Your task to perform on an android device: install app "Clock" Image 0: 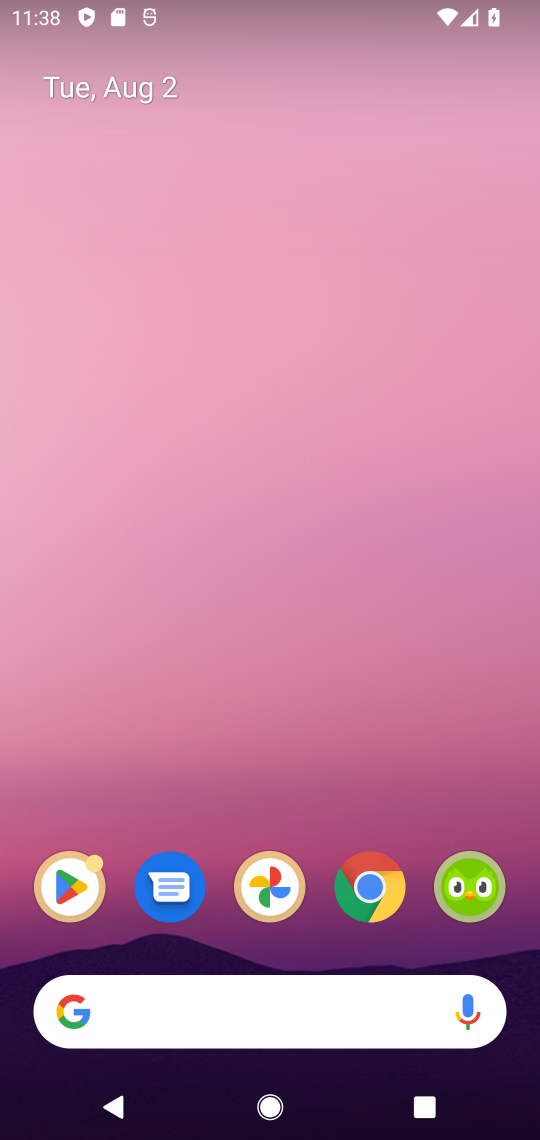
Step 0: drag from (137, 934) to (196, 70)
Your task to perform on an android device: install app "Clock" Image 1: 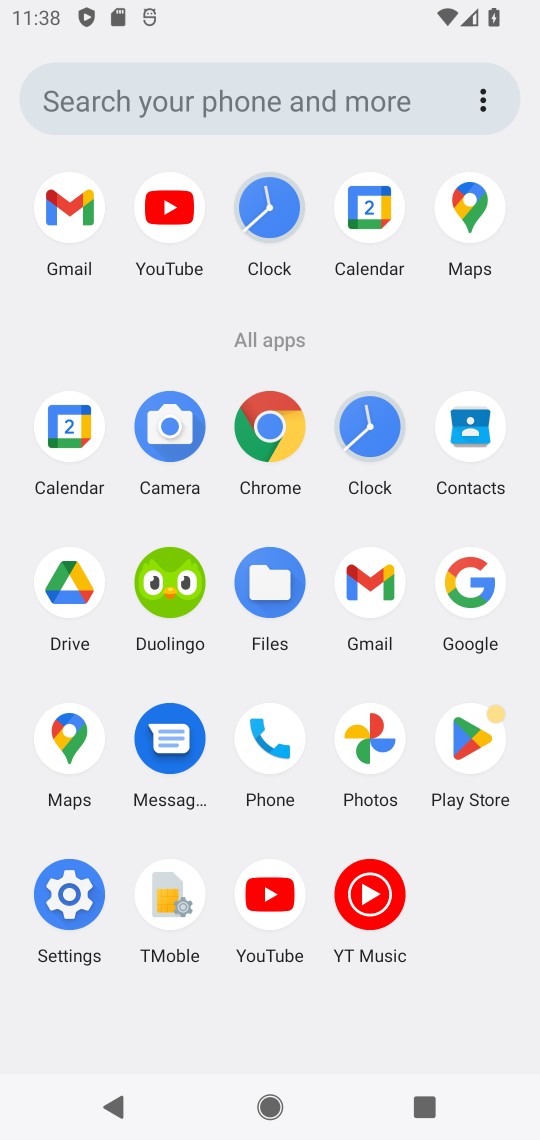
Step 1: click (481, 746)
Your task to perform on an android device: install app "Clock" Image 2: 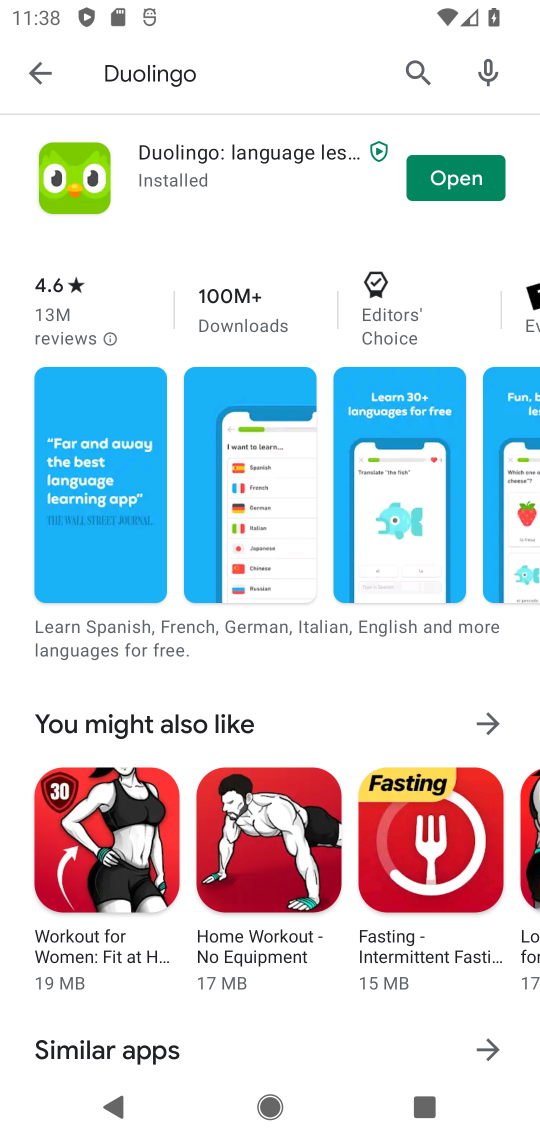
Step 2: click (423, 67)
Your task to perform on an android device: install app "Clock" Image 3: 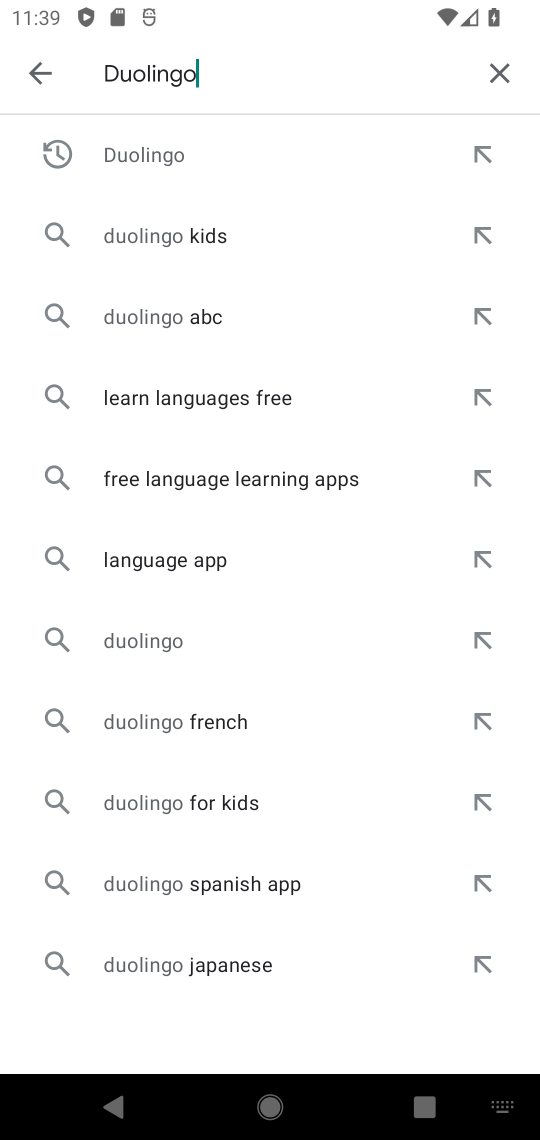
Step 3: click (503, 53)
Your task to perform on an android device: install app "Clock" Image 4: 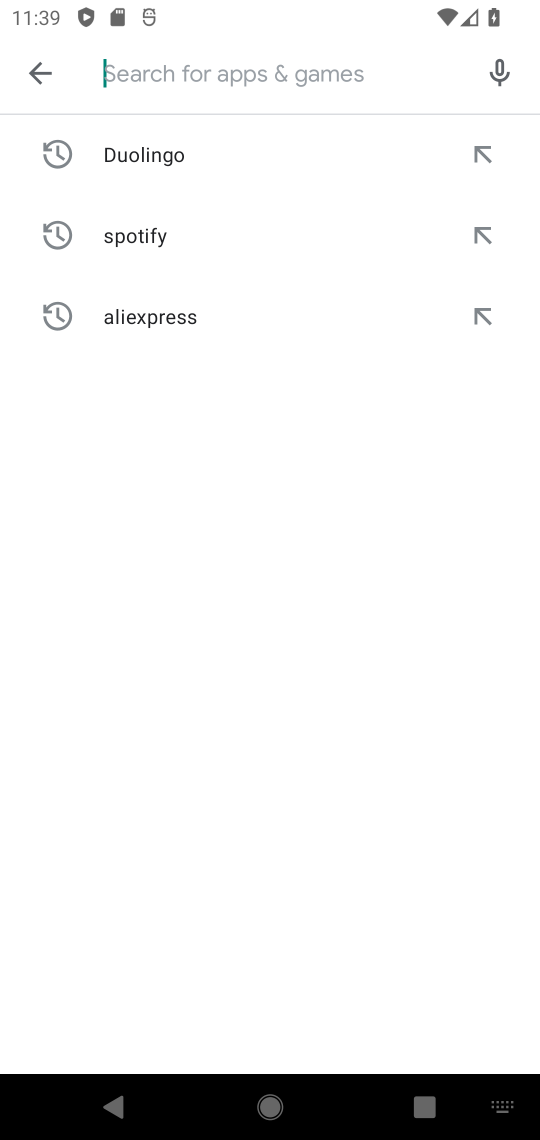
Step 4: type "clock "
Your task to perform on an android device: install app "Clock" Image 5: 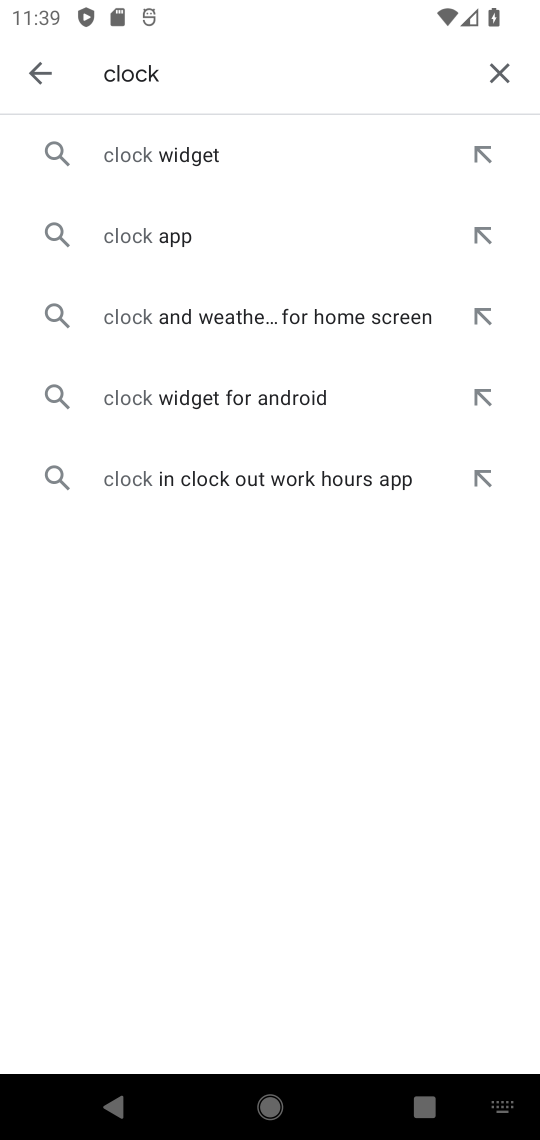
Step 5: type ""
Your task to perform on an android device: install app "Clock" Image 6: 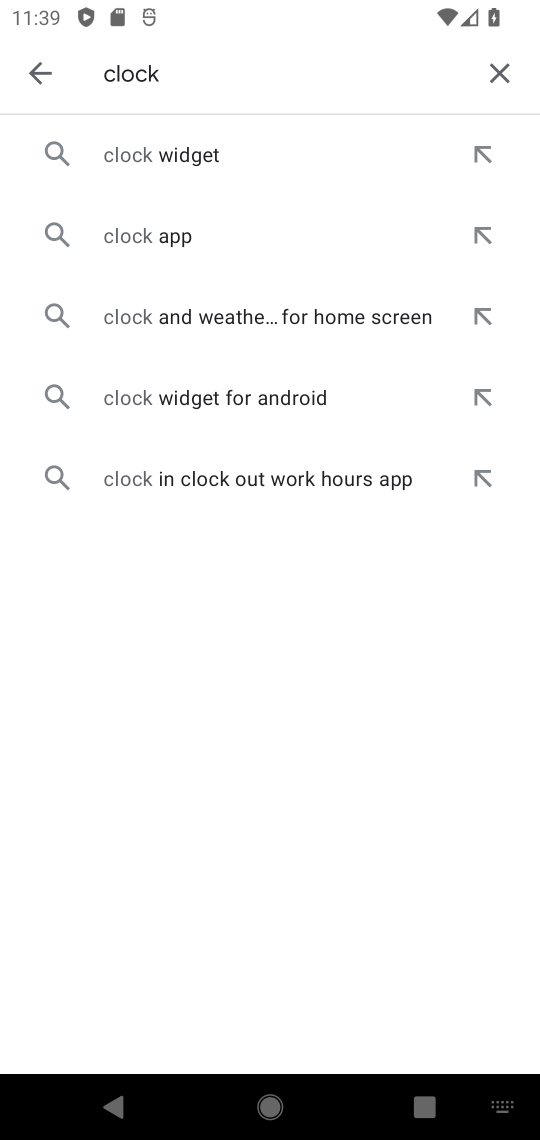
Step 6: press enter
Your task to perform on an android device: install app "Clock" Image 7: 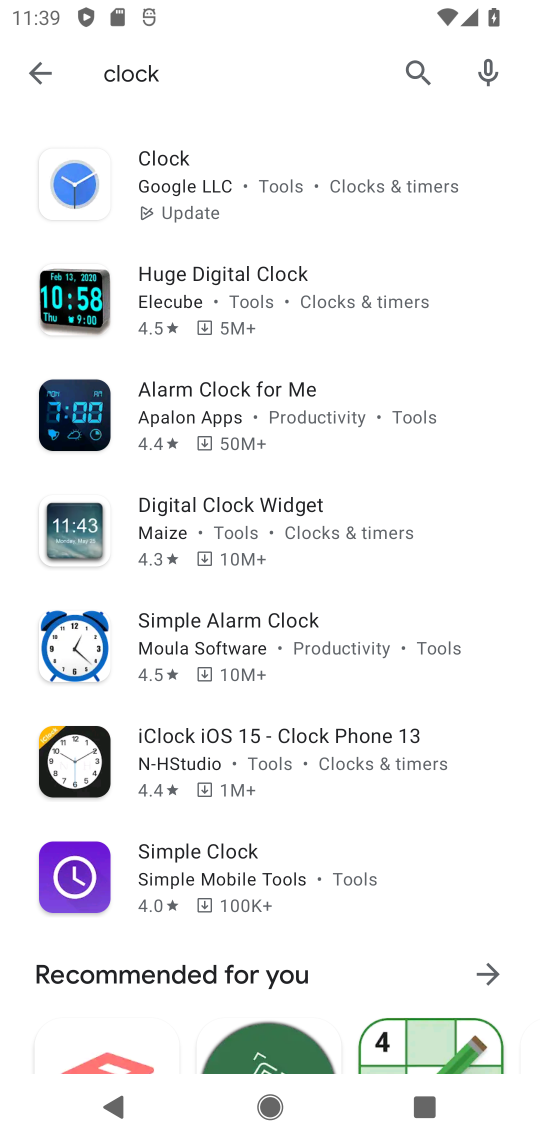
Step 7: click (257, 167)
Your task to perform on an android device: install app "Clock" Image 8: 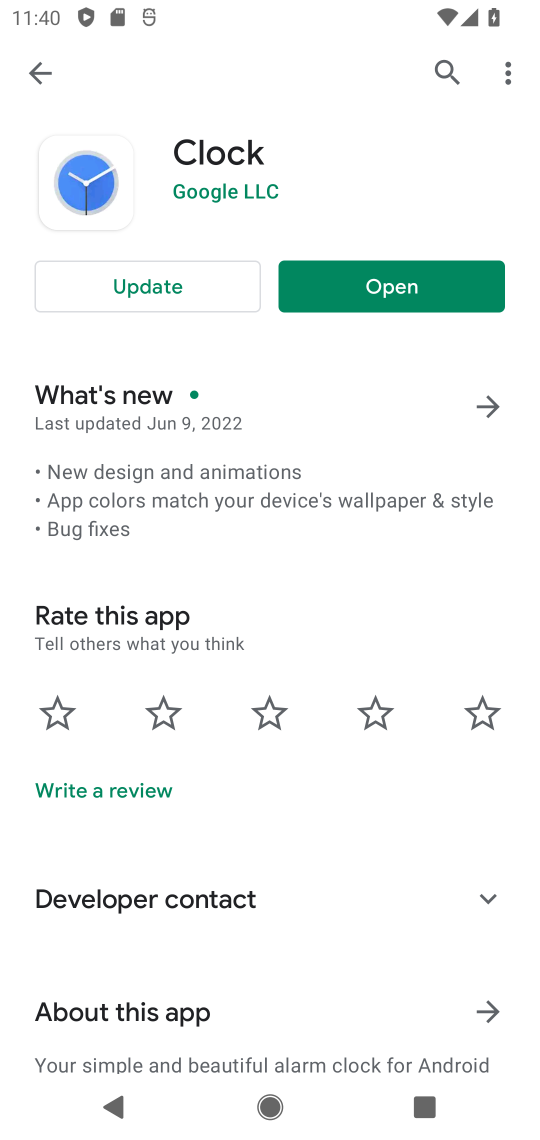
Step 8: task complete